Your task to perform on an android device: add a contact in the contacts app Image 0: 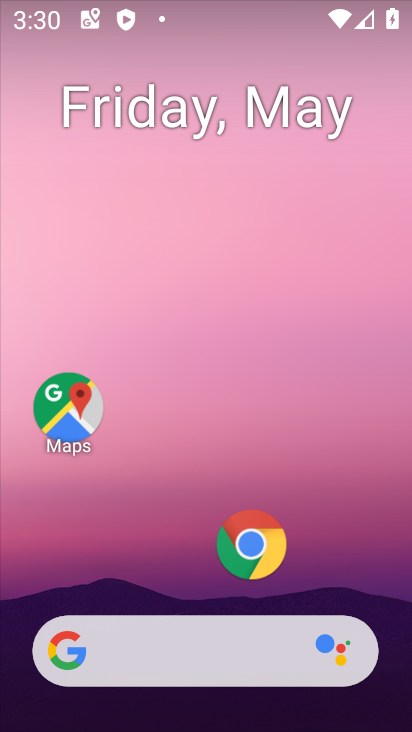
Step 0: drag from (183, 584) to (251, 140)
Your task to perform on an android device: add a contact in the contacts app Image 1: 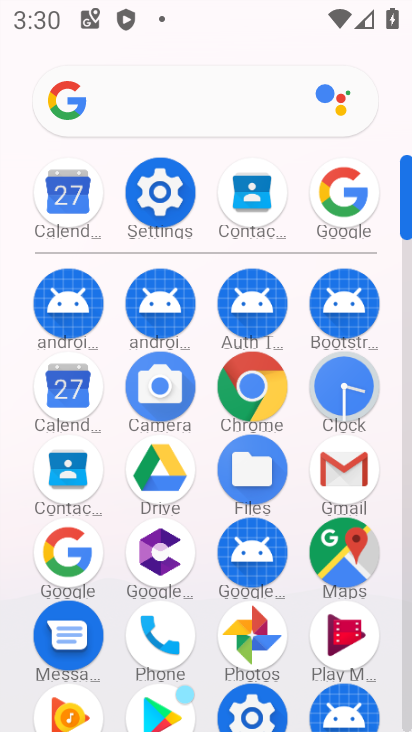
Step 1: click (73, 465)
Your task to perform on an android device: add a contact in the contacts app Image 2: 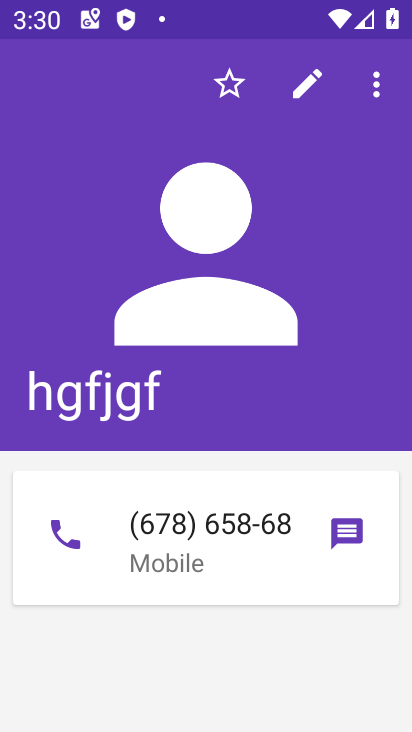
Step 2: press back button
Your task to perform on an android device: add a contact in the contacts app Image 3: 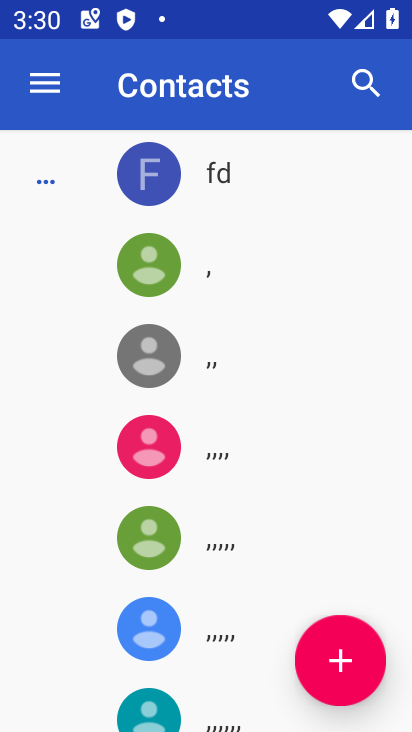
Step 3: click (326, 641)
Your task to perform on an android device: add a contact in the contacts app Image 4: 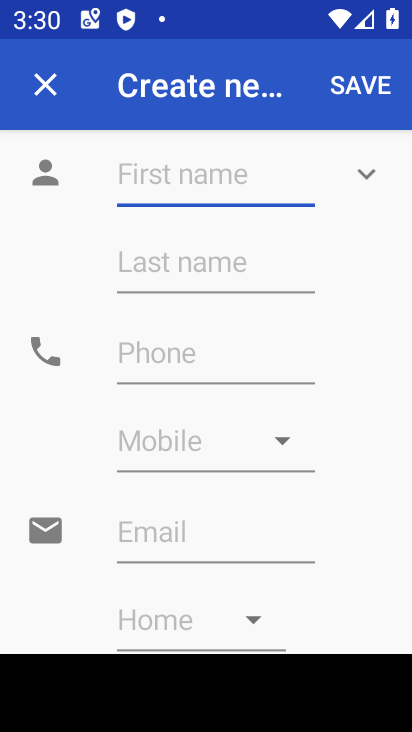
Step 4: type "gjty"
Your task to perform on an android device: add a contact in the contacts app Image 5: 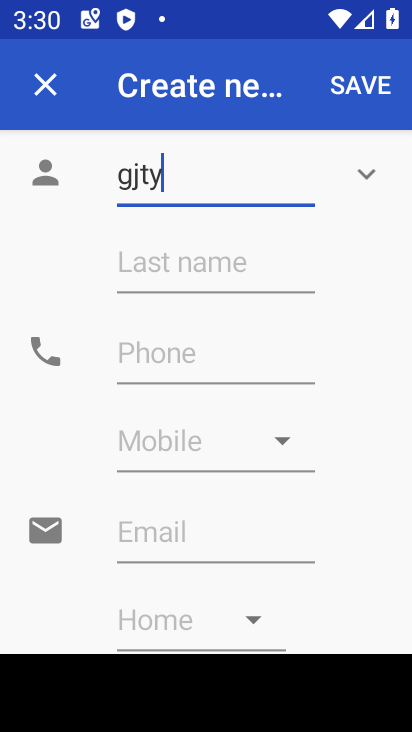
Step 5: click (206, 357)
Your task to perform on an android device: add a contact in the contacts app Image 6: 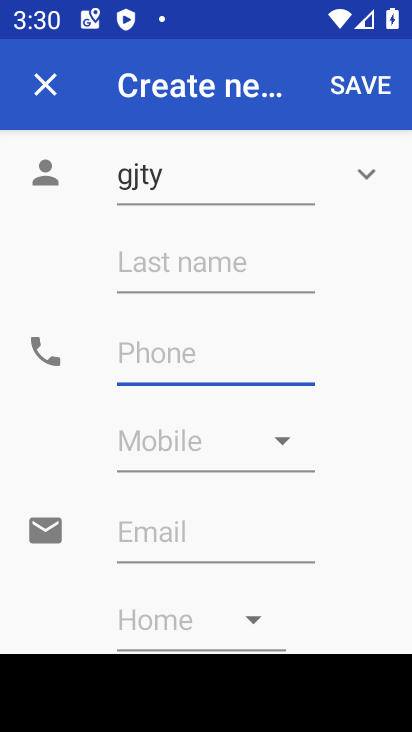
Step 6: type "6865754746565"
Your task to perform on an android device: add a contact in the contacts app Image 7: 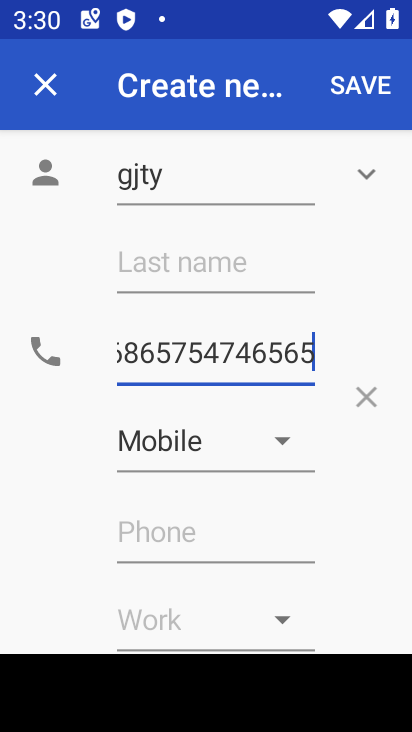
Step 7: click (350, 96)
Your task to perform on an android device: add a contact in the contacts app Image 8: 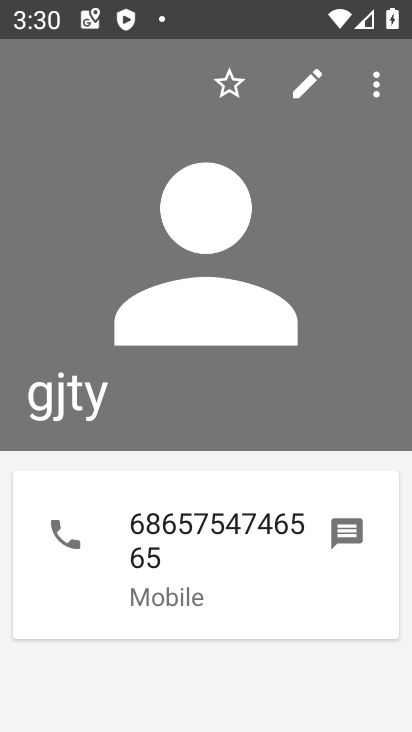
Step 8: task complete